Your task to perform on an android device: Open maps Image 0: 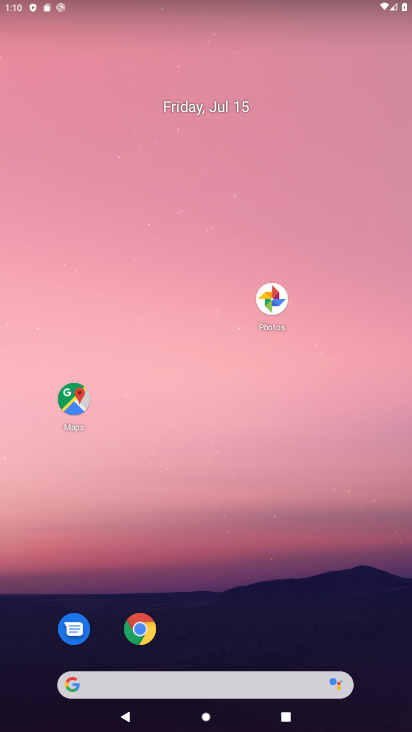
Step 0: click (76, 405)
Your task to perform on an android device: Open maps Image 1: 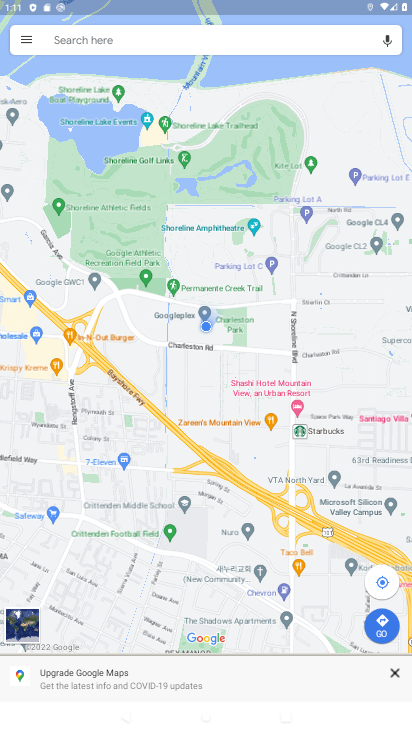
Step 1: task complete